Your task to perform on an android device: change the clock display to analog Image 0: 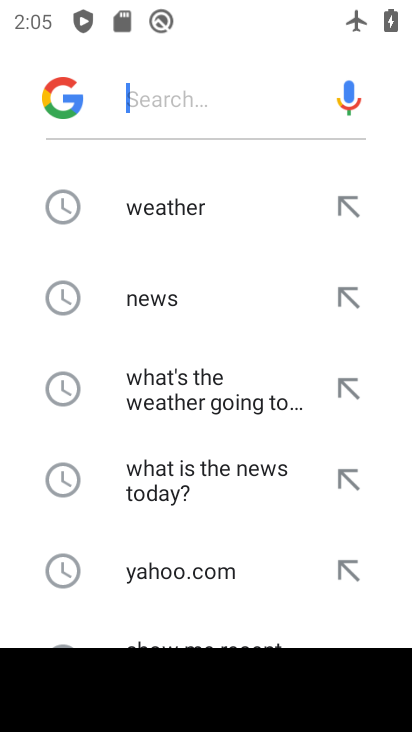
Step 0: press back button
Your task to perform on an android device: change the clock display to analog Image 1: 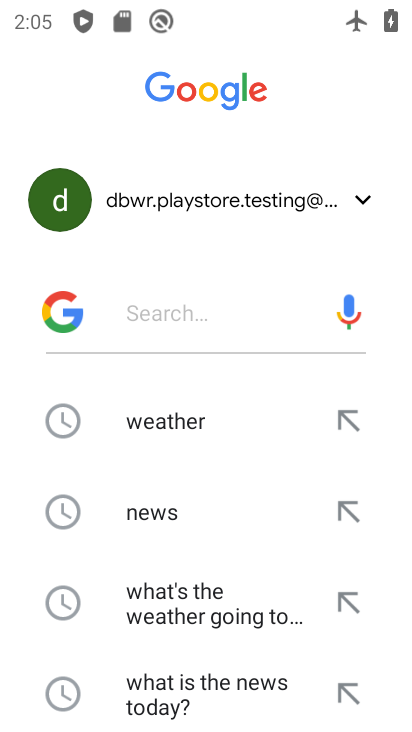
Step 1: press back button
Your task to perform on an android device: change the clock display to analog Image 2: 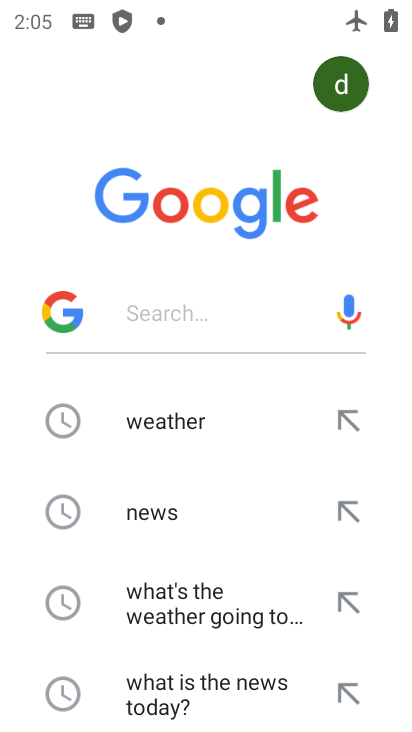
Step 2: press back button
Your task to perform on an android device: change the clock display to analog Image 3: 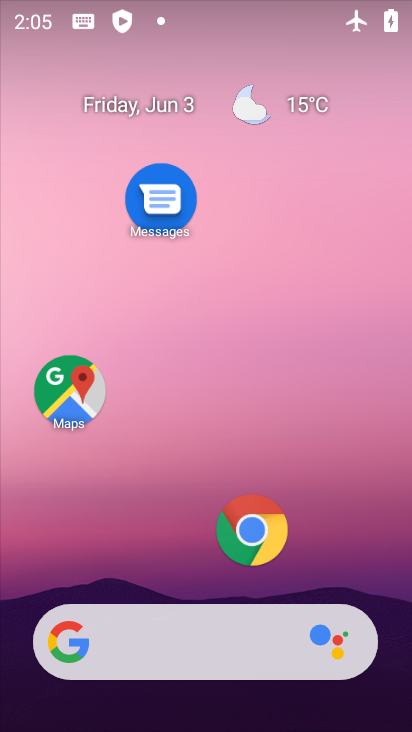
Step 3: drag from (154, 550) to (69, 110)
Your task to perform on an android device: change the clock display to analog Image 4: 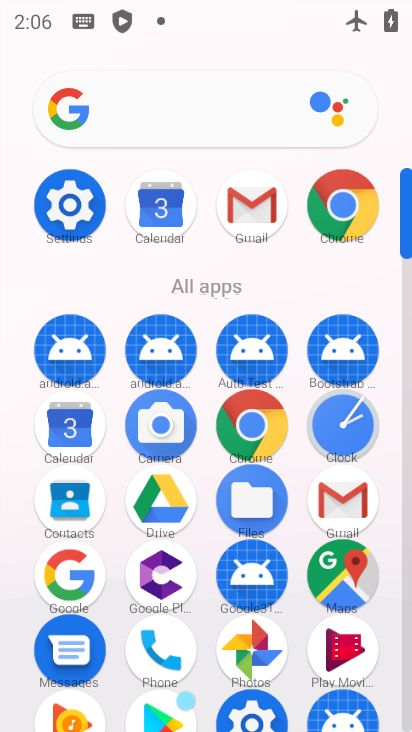
Step 4: drag from (300, 601) to (243, 446)
Your task to perform on an android device: change the clock display to analog Image 5: 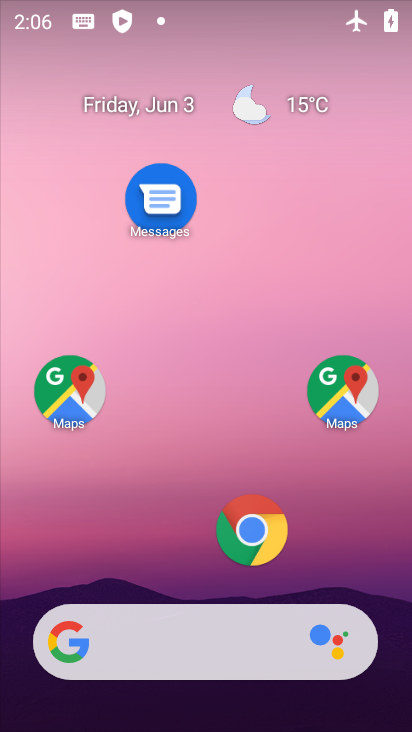
Step 5: drag from (328, 359) to (301, 293)
Your task to perform on an android device: change the clock display to analog Image 6: 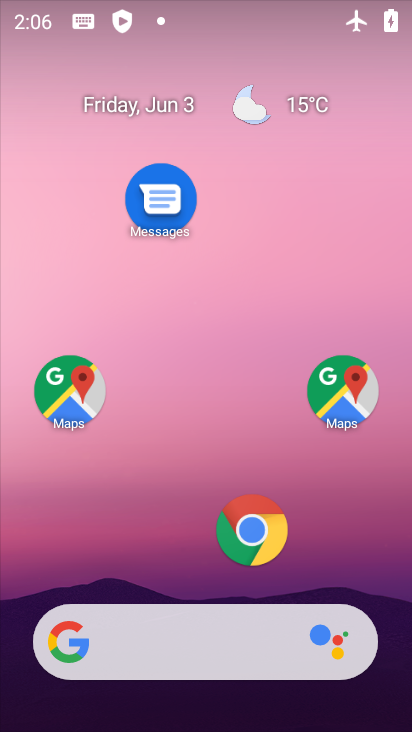
Step 6: drag from (347, 398) to (185, 97)
Your task to perform on an android device: change the clock display to analog Image 7: 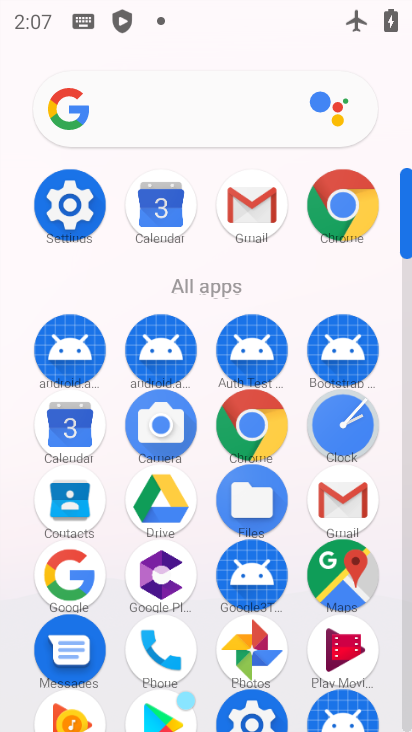
Step 7: click (342, 428)
Your task to perform on an android device: change the clock display to analog Image 8: 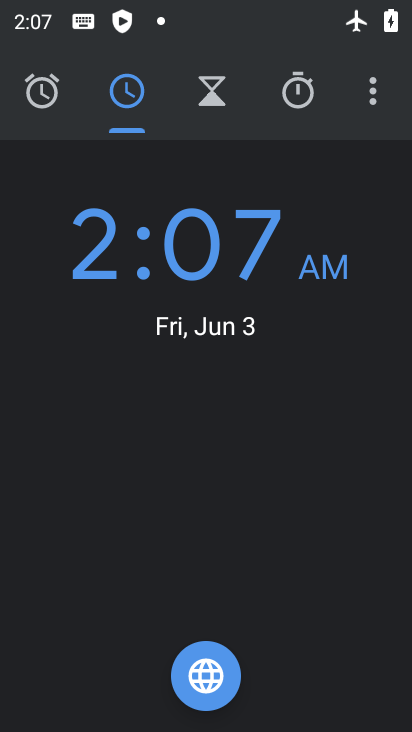
Step 8: click (372, 90)
Your task to perform on an android device: change the clock display to analog Image 9: 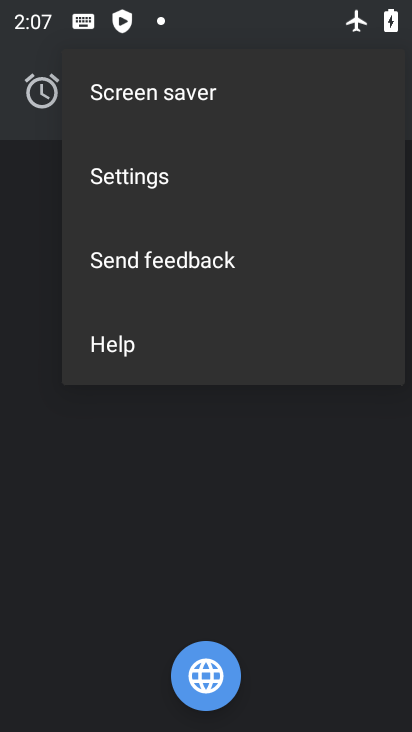
Step 9: click (173, 178)
Your task to perform on an android device: change the clock display to analog Image 10: 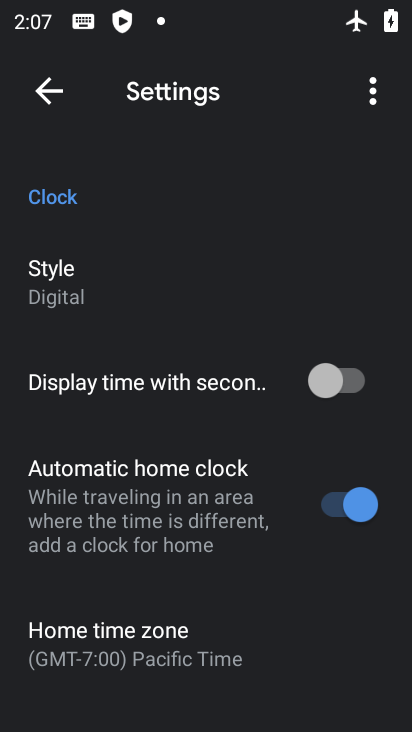
Step 10: click (57, 302)
Your task to perform on an android device: change the clock display to analog Image 11: 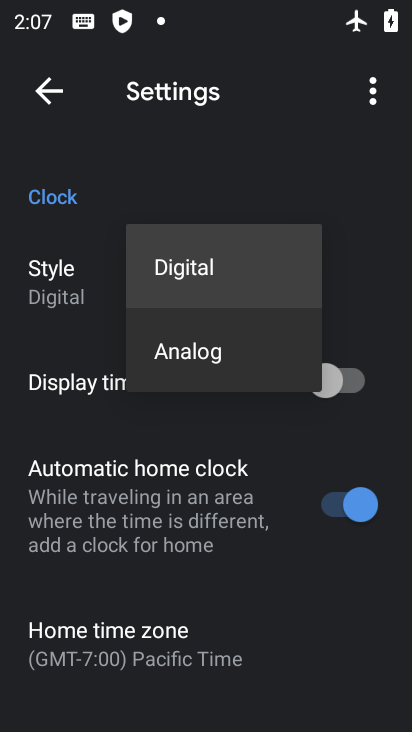
Step 11: click (188, 352)
Your task to perform on an android device: change the clock display to analog Image 12: 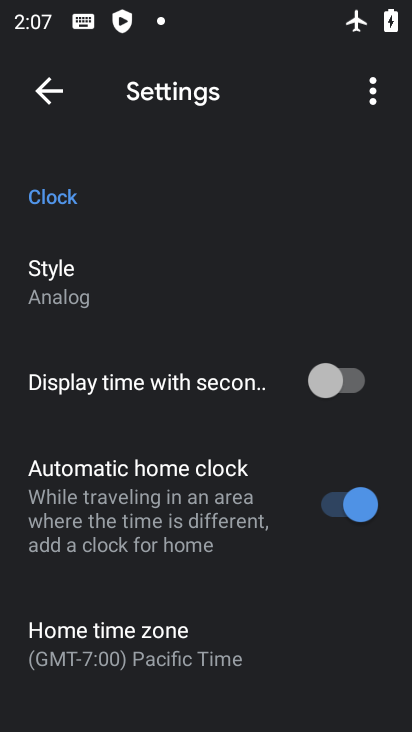
Step 12: task complete